Your task to perform on an android device: open a bookmark in the chrome app Image 0: 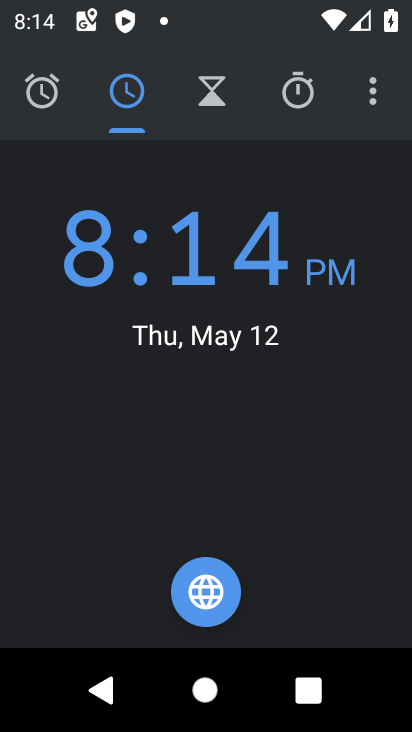
Step 0: press home button
Your task to perform on an android device: open a bookmark in the chrome app Image 1: 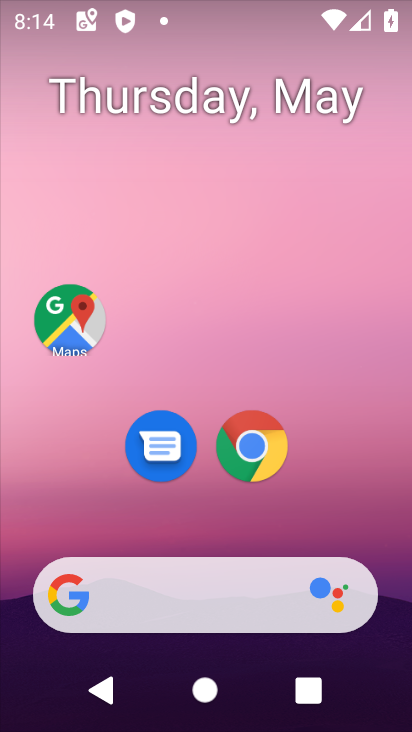
Step 1: drag from (354, 483) to (338, 112)
Your task to perform on an android device: open a bookmark in the chrome app Image 2: 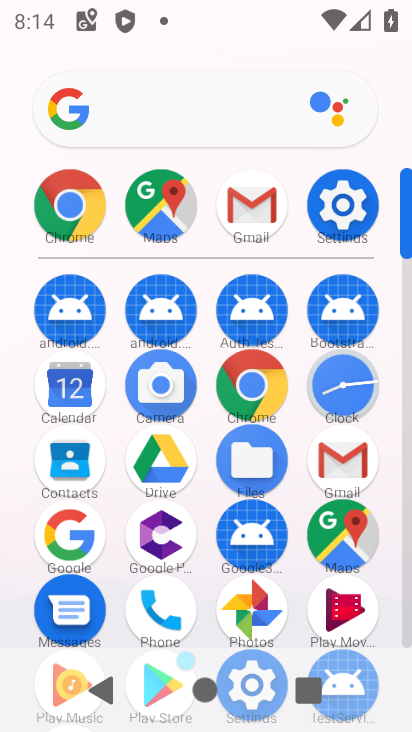
Step 2: click (239, 376)
Your task to perform on an android device: open a bookmark in the chrome app Image 3: 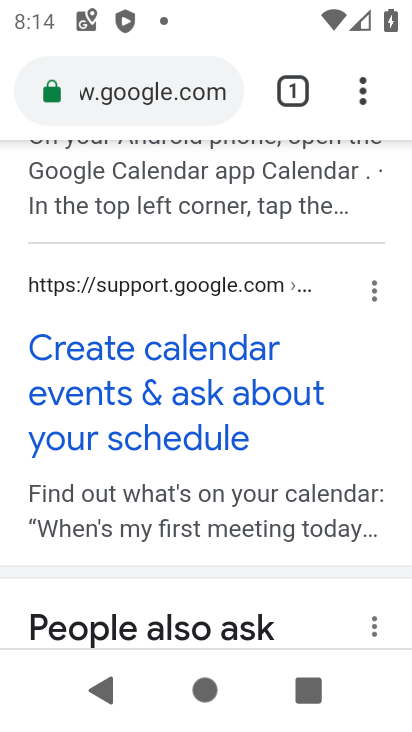
Step 3: task complete